Your task to perform on an android device: Open the calendar app, open the side menu, and click the "Day" option Image 0: 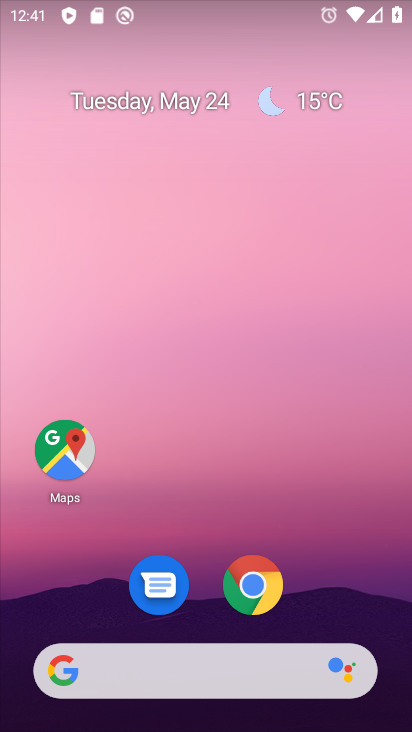
Step 0: drag from (228, 467) to (245, 24)
Your task to perform on an android device: Open the calendar app, open the side menu, and click the "Day" option Image 1: 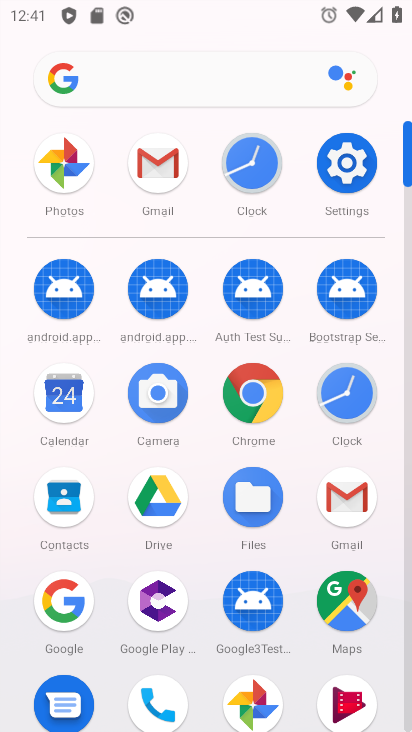
Step 1: click (76, 392)
Your task to perform on an android device: Open the calendar app, open the side menu, and click the "Day" option Image 2: 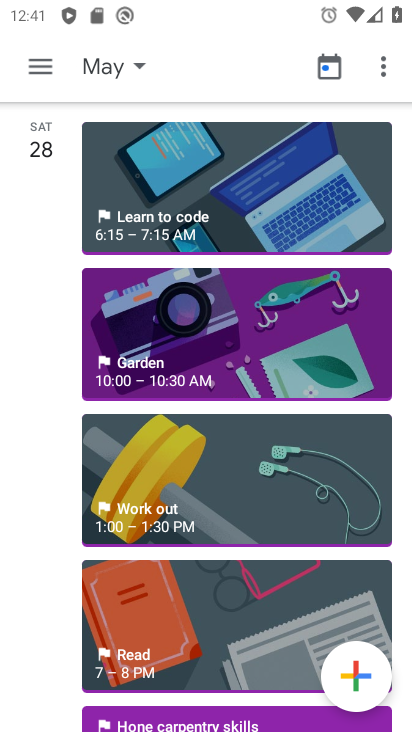
Step 2: click (45, 67)
Your task to perform on an android device: Open the calendar app, open the side menu, and click the "Day" option Image 3: 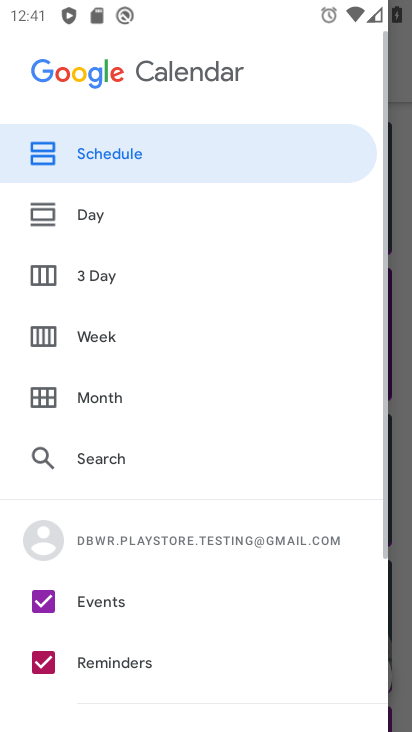
Step 3: click (45, 212)
Your task to perform on an android device: Open the calendar app, open the side menu, and click the "Day" option Image 4: 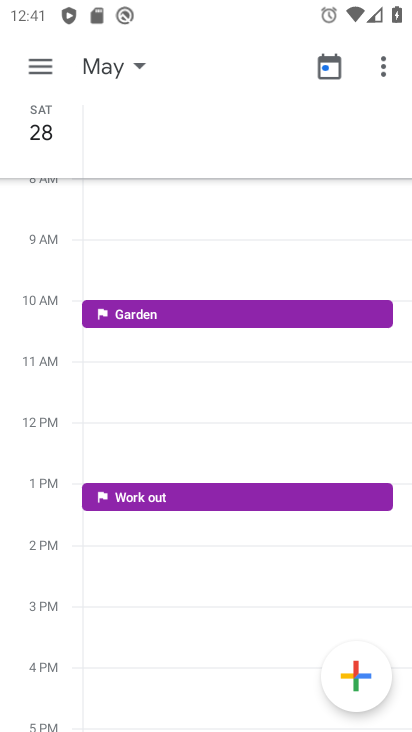
Step 4: task complete